Your task to perform on an android device: change the upload size in google photos Image 0: 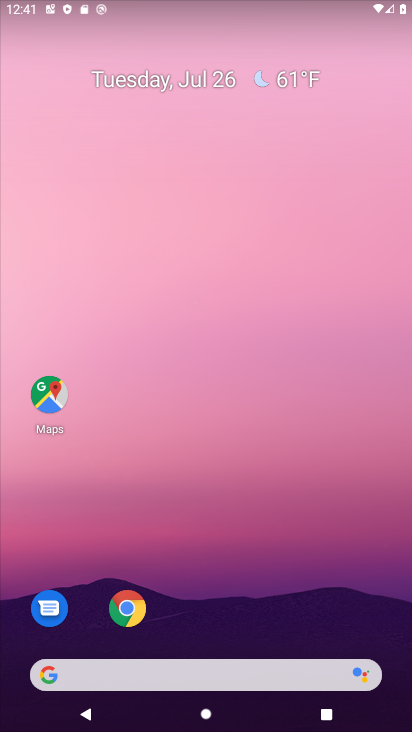
Step 0: press home button
Your task to perform on an android device: change the upload size in google photos Image 1: 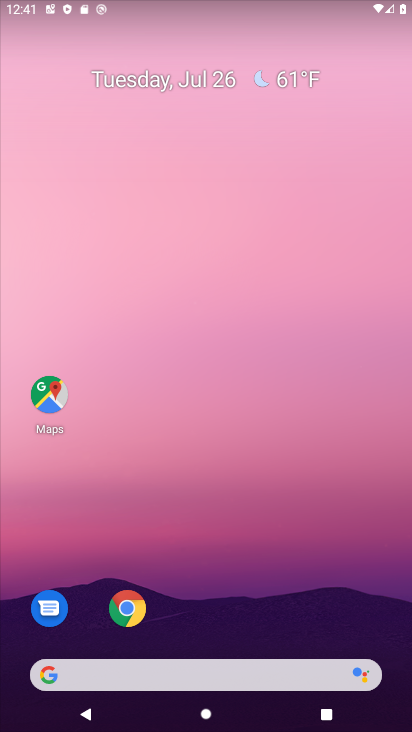
Step 1: drag from (371, 568) to (361, 130)
Your task to perform on an android device: change the upload size in google photos Image 2: 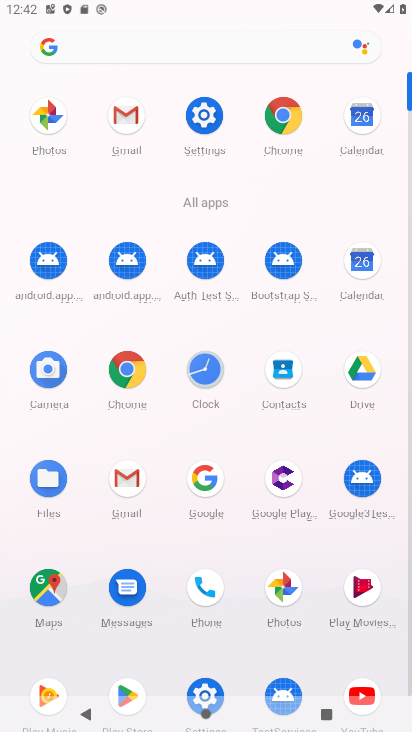
Step 2: click (286, 587)
Your task to perform on an android device: change the upload size in google photos Image 3: 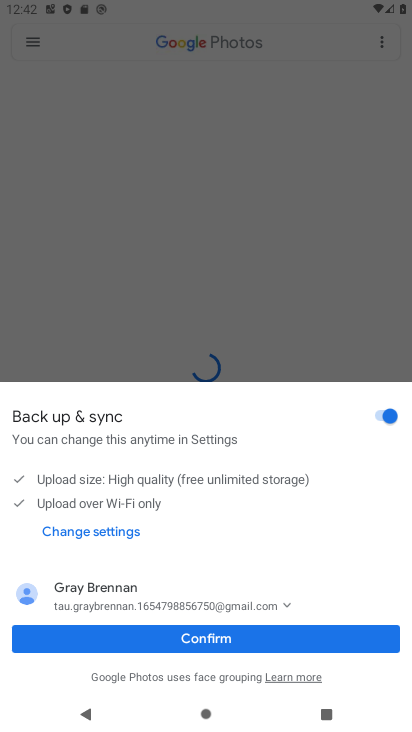
Step 3: click (240, 640)
Your task to perform on an android device: change the upload size in google photos Image 4: 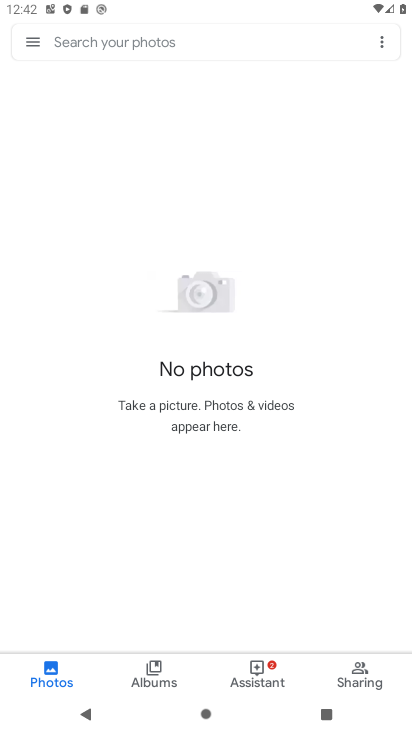
Step 4: click (37, 52)
Your task to perform on an android device: change the upload size in google photos Image 5: 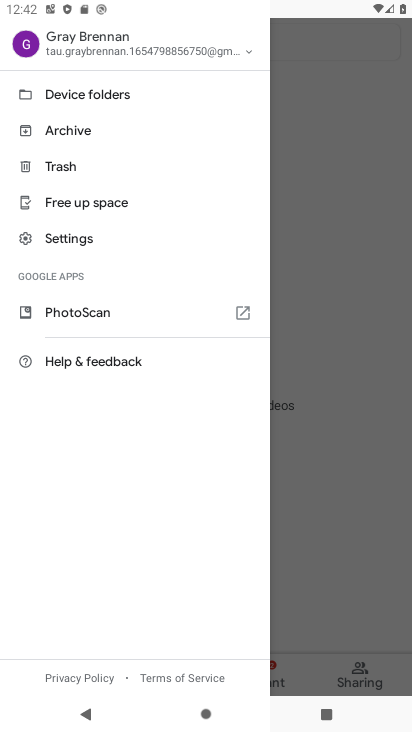
Step 5: drag from (158, 507) to (164, 439)
Your task to perform on an android device: change the upload size in google photos Image 6: 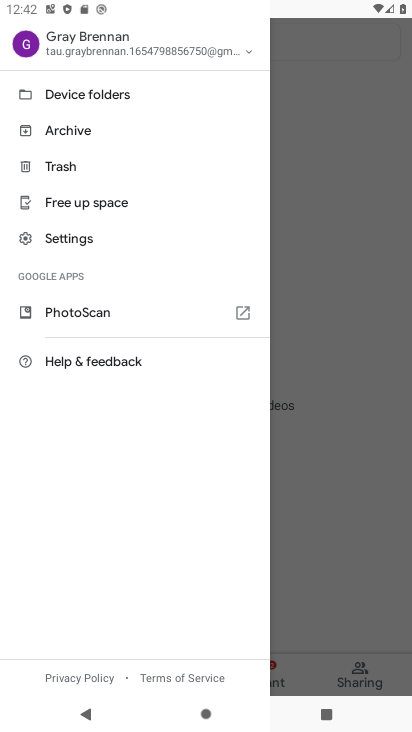
Step 6: click (107, 252)
Your task to perform on an android device: change the upload size in google photos Image 7: 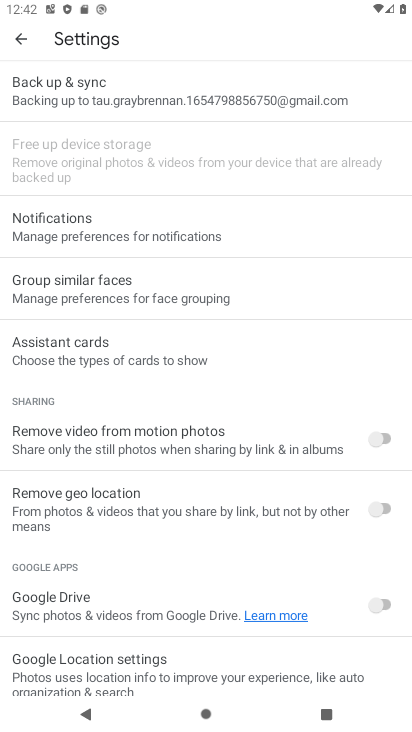
Step 7: drag from (242, 509) to (242, 420)
Your task to perform on an android device: change the upload size in google photos Image 8: 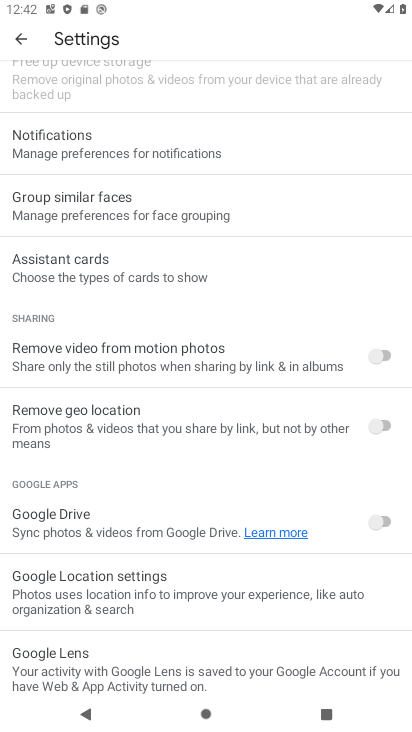
Step 8: drag from (269, 536) to (270, 403)
Your task to perform on an android device: change the upload size in google photos Image 9: 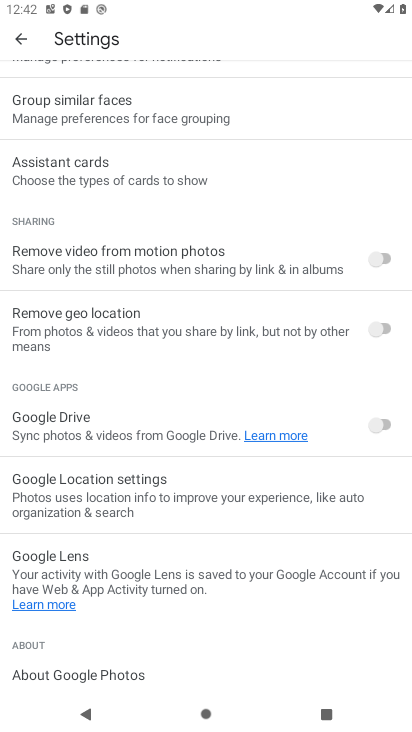
Step 9: drag from (289, 543) to (288, 442)
Your task to perform on an android device: change the upload size in google photos Image 10: 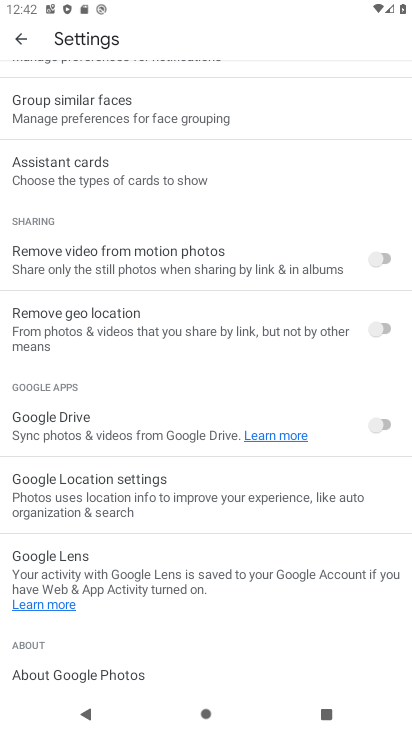
Step 10: drag from (291, 351) to (290, 478)
Your task to perform on an android device: change the upload size in google photos Image 11: 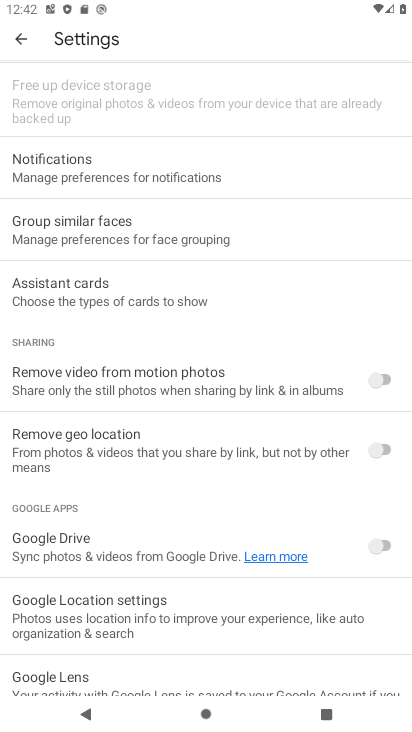
Step 11: drag from (278, 331) to (279, 469)
Your task to perform on an android device: change the upload size in google photos Image 12: 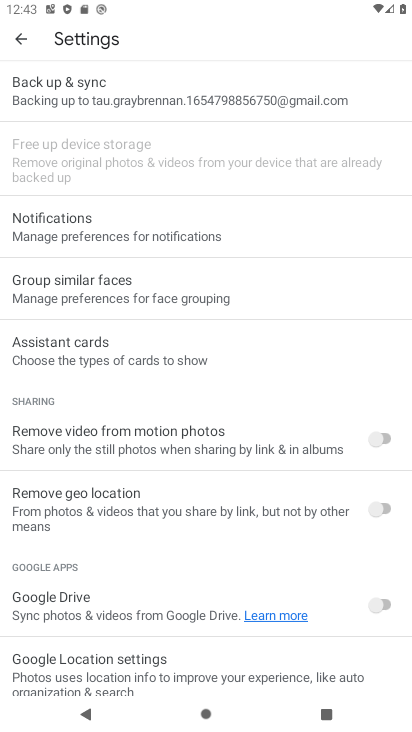
Step 12: click (202, 84)
Your task to perform on an android device: change the upload size in google photos Image 13: 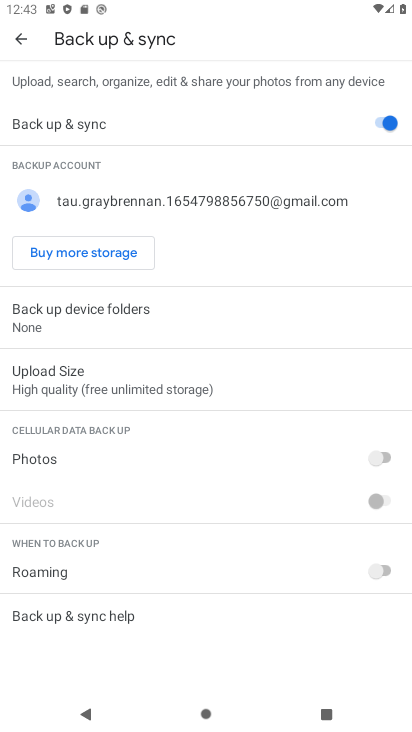
Step 13: drag from (223, 461) to (231, 365)
Your task to perform on an android device: change the upload size in google photos Image 14: 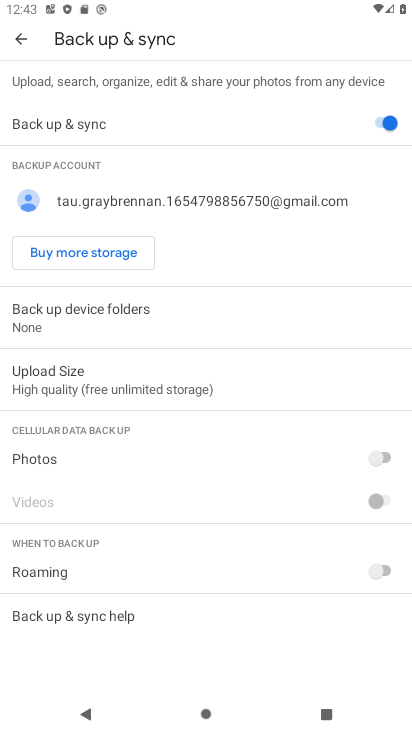
Step 14: drag from (221, 518) to (223, 422)
Your task to perform on an android device: change the upload size in google photos Image 15: 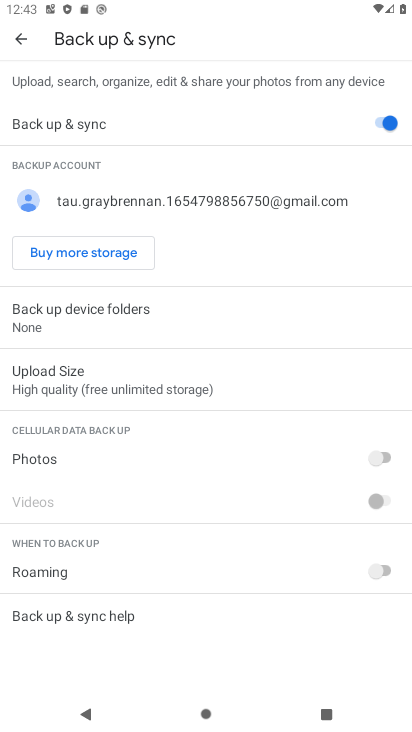
Step 15: click (197, 381)
Your task to perform on an android device: change the upload size in google photos Image 16: 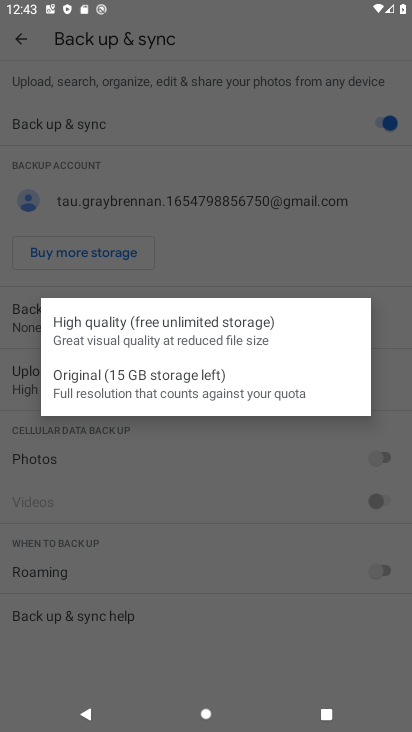
Step 16: click (205, 388)
Your task to perform on an android device: change the upload size in google photos Image 17: 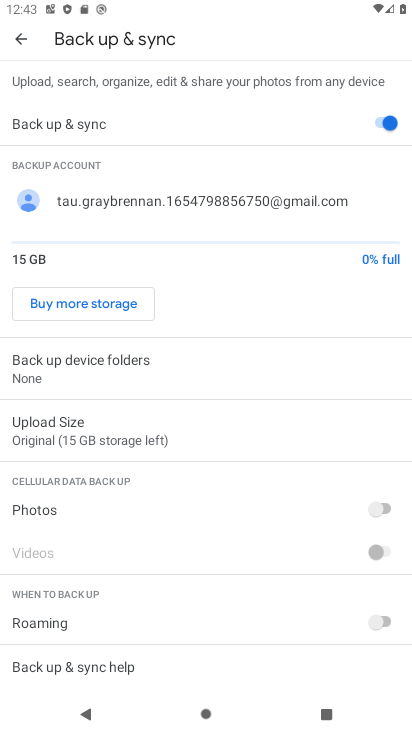
Step 17: click (157, 435)
Your task to perform on an android device: change the upload size in google photos Image 18: 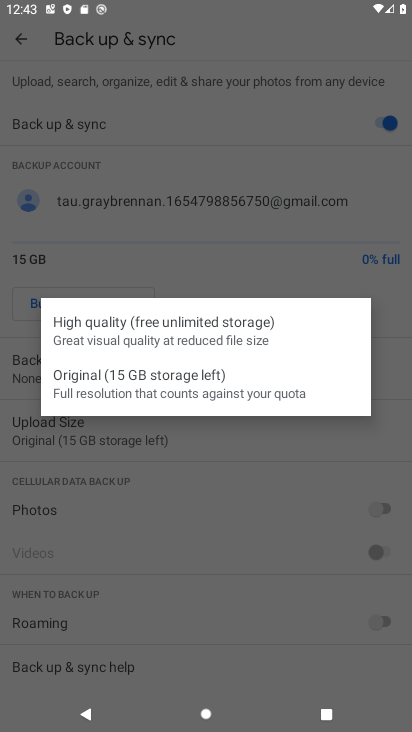
Step 18: click (246, 381)
Your task to perform on an android device: change the upload size in google photos Image 19: 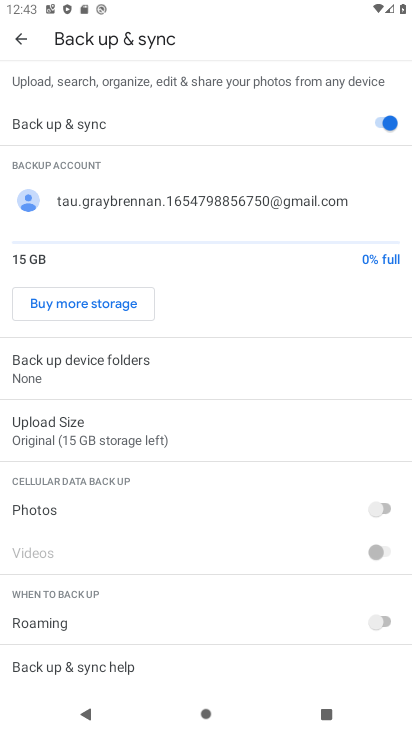
Step 19: task complete